Your task to perform on an android device: turn off data saver in the chrome app Image 0: 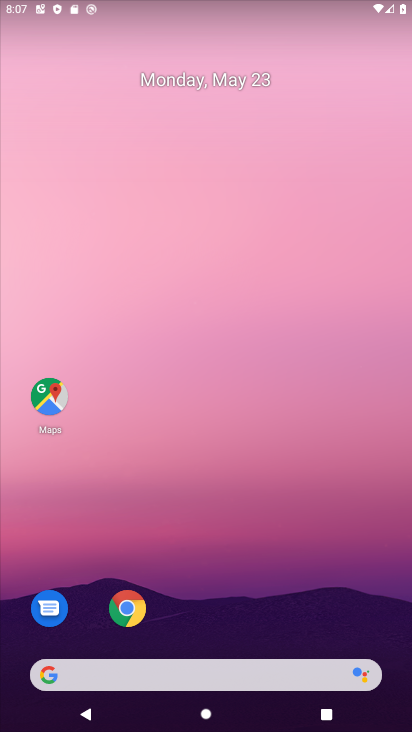
Step 0: click (112, 615)
Your task to perform on an android device: turn off data saver in the chrome app Image 1: 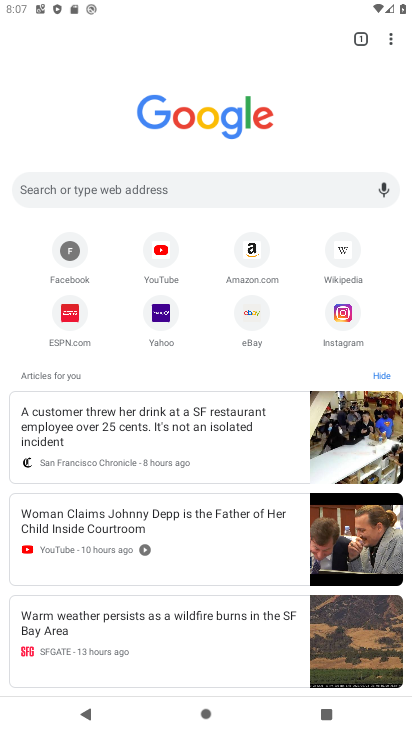
Step 1: drag from (385, 49) to (272, 330)
Your task to perform on an android device: turn off data saver in the chrome app Image 2: 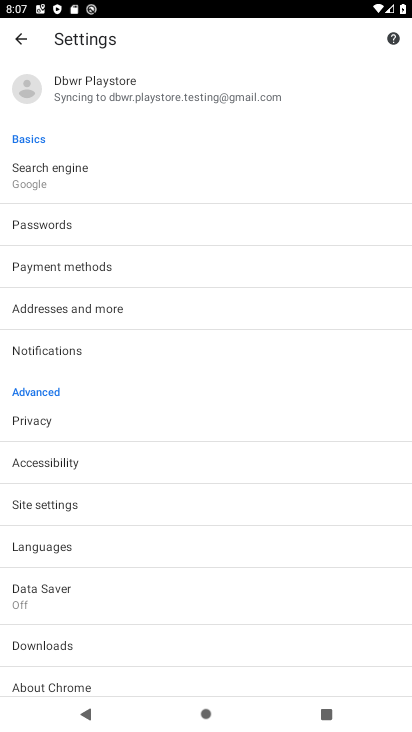
Step 2: click (100, 593)
Your task to perform on an android device: turn off data saver in the chrome app Image 3: 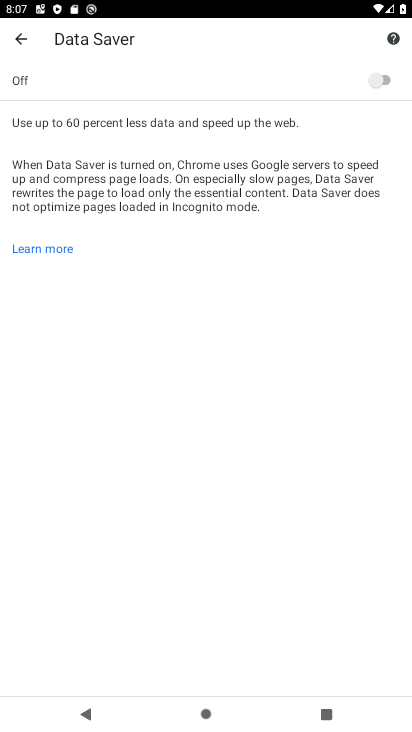
Step 3: task complete